Your task to perform on an android device: turn off improve location accuracy Image 0: 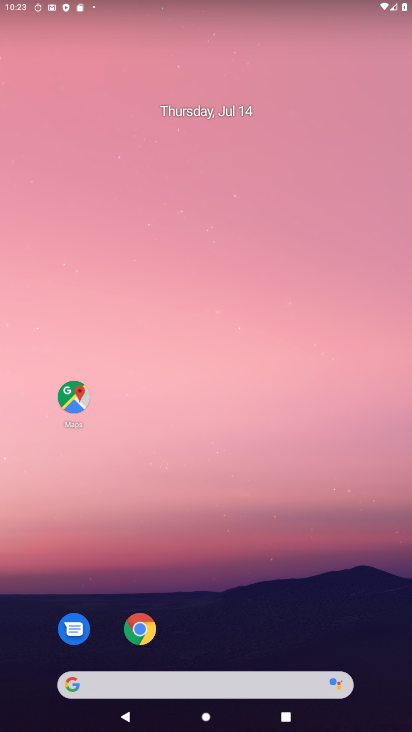
Step 0: drag from (261, 625) to (287, 317)
Your task to perform on an android device: turn off improve location accuracy Image 1: 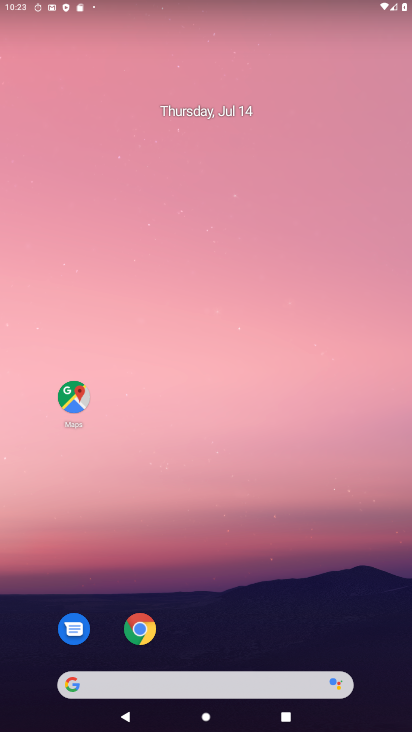
Step 1: drag from (248, 592) to (345, 2)
Your task to perform on an android device: turn off improve location accuracy Image 2: 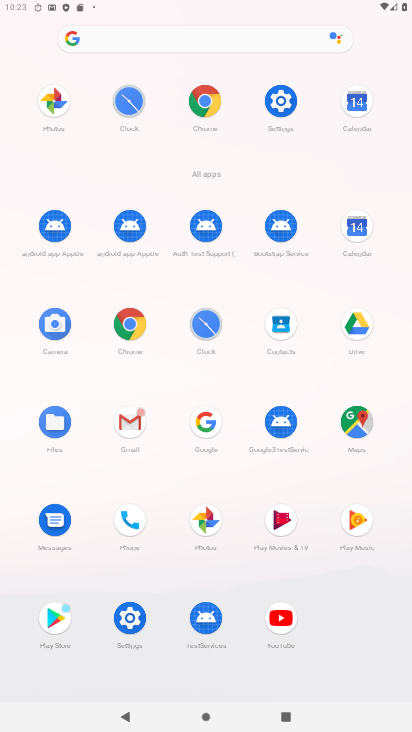
Step 2: click (279, 113)
Your task to perform on an android device: turn off improve location accuracy Image 3: 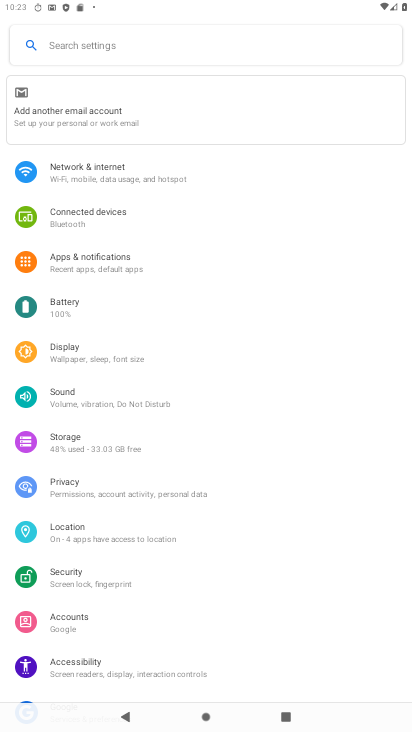
Step 3: click (76, 524)
Your task to perform on an android device: turn off improve location accuracy Image 4: 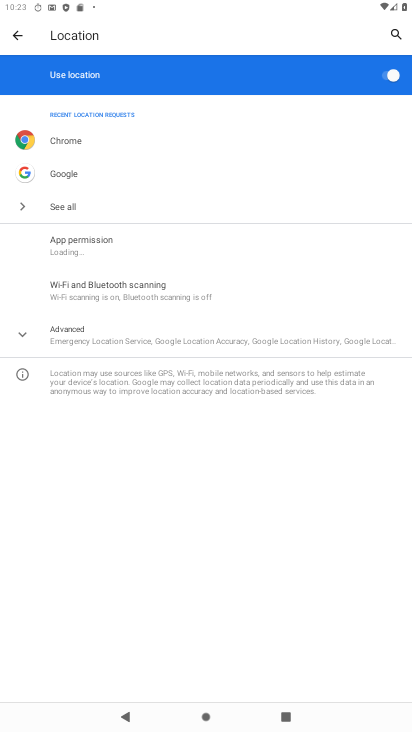
Step 4: click (166, 340)
Your task to perform on an android device: turn off improve location accuracy Image 5: 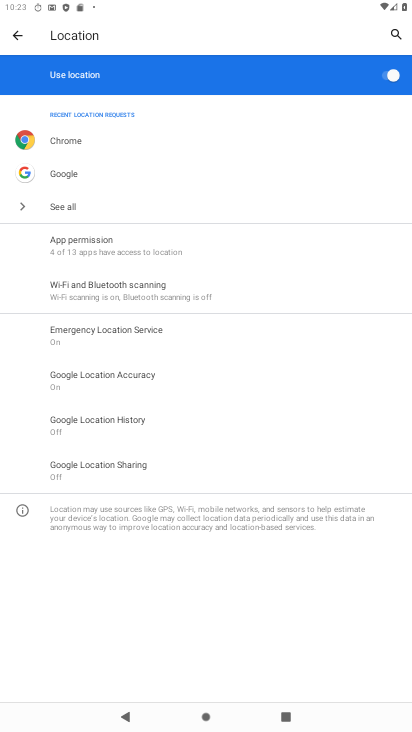
Step 5: click (196, 377)
Your task to perform on an android device: turn off improve location accuracy Image 6: 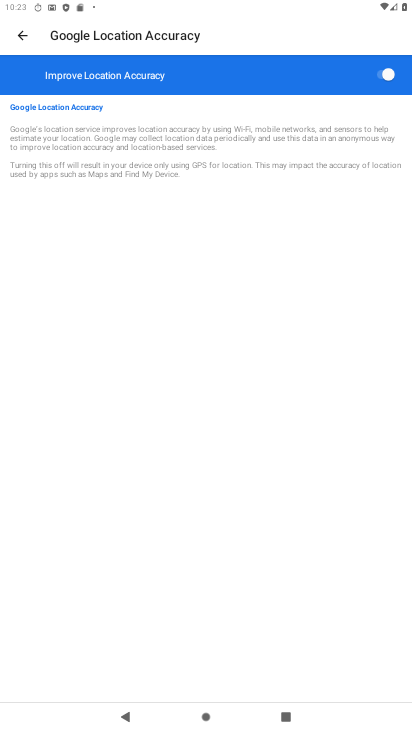
Step 6: click (376, 84)
Your task to perform on an android device: turn off improve location accuracy Image 7: 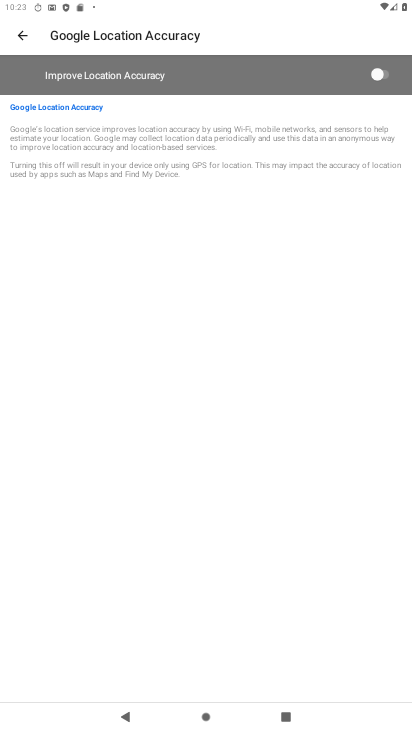
Step 7: task complete